Your task to perform on an android device: turn off picture-in-picture Image 0: 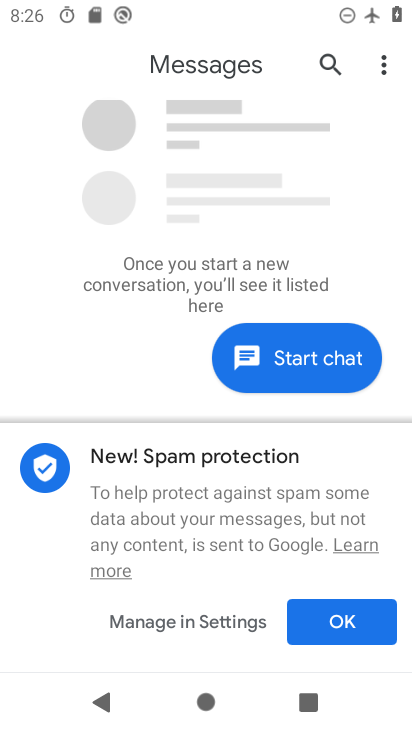
Step 0: press home button
Your task to perform on an android device: turn off picture-in-picture Image 1: 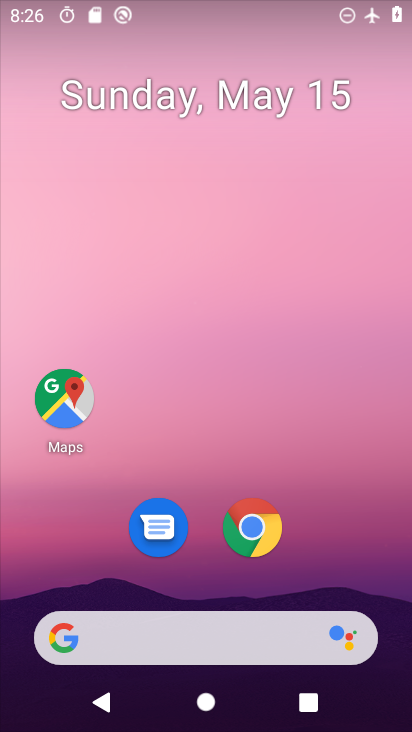
Step 1: click (250, 528)
Your task to perform on an android device: turn off picture-in-picture Image 2: 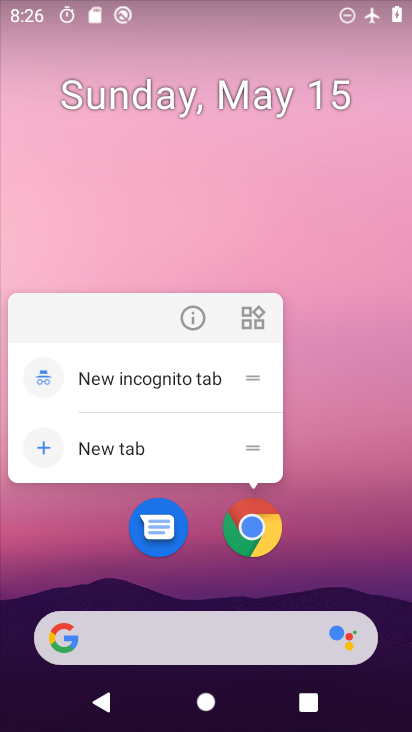
Step 2: click (194, 327)
Your task to perform on an android device: turn off picture-in-picture Image 3: 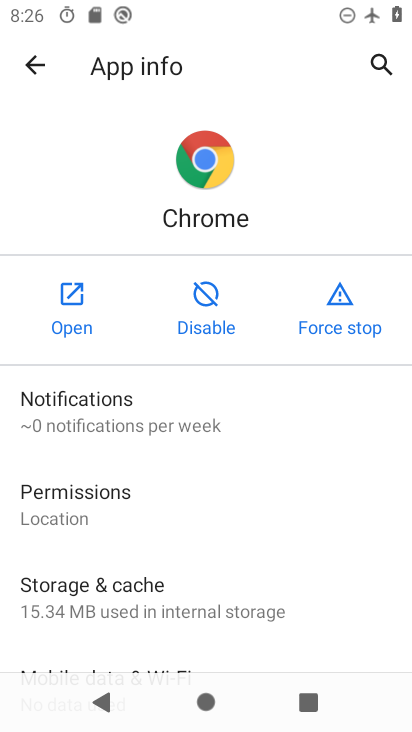
Step 3: drag from (234, 603) to (234, 420)
Your task to perform on an android device: turn off picture-in-picture Image 4: 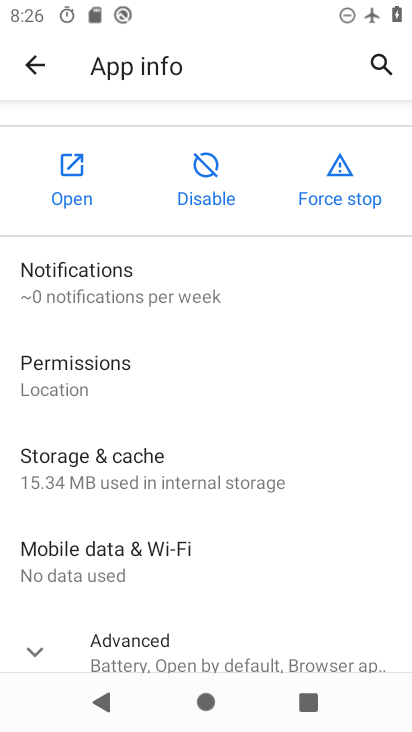
Step 4: drag from (216, 568) to (211, 391)
Your task to perform on an android device: turn off picture-in-picture Image 5: 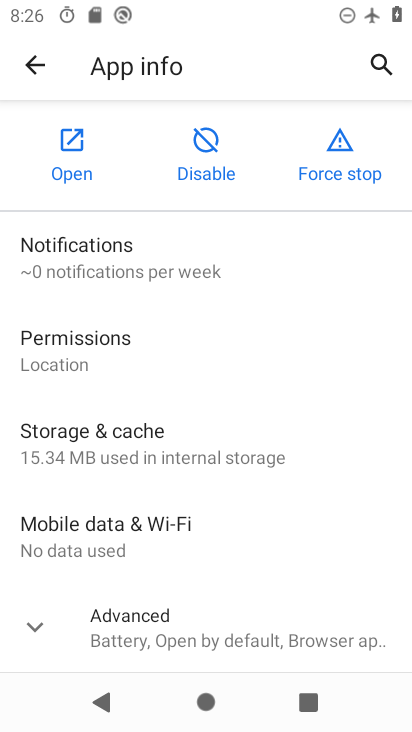
Step 5: drag from (219, 572) to (246, 375)
Your task to perform on an android device: turn off picture-in-picture Image 6: 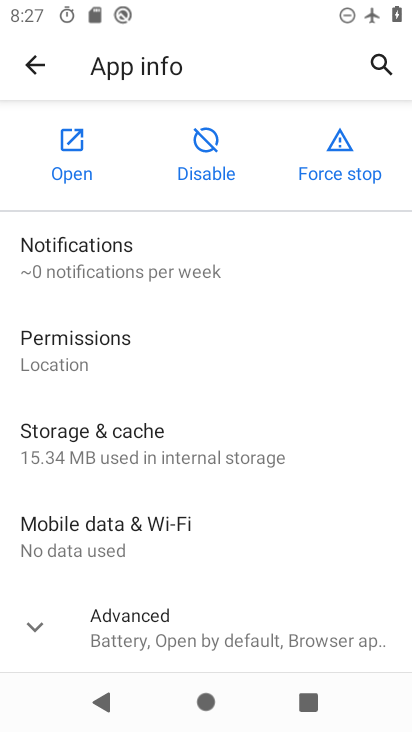
Step 6: click (165, 615)
Your task to perform on an android device: turn off picture-in-picture Image 7: 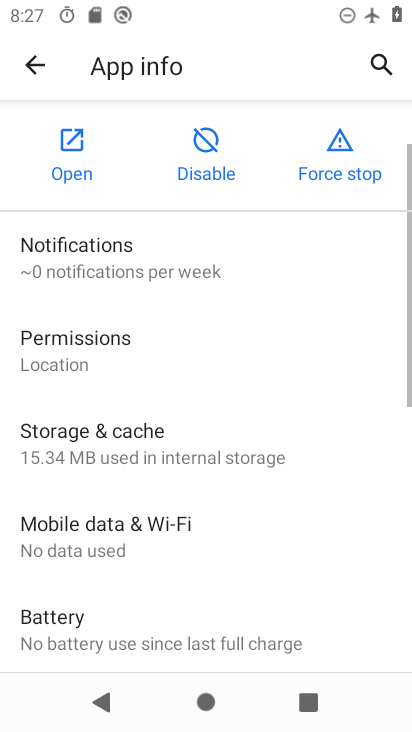
Step 7: drag from (190, 579) to (190, 297)
Your task to perform on an android device: turn off picture-in-picture Image 8: 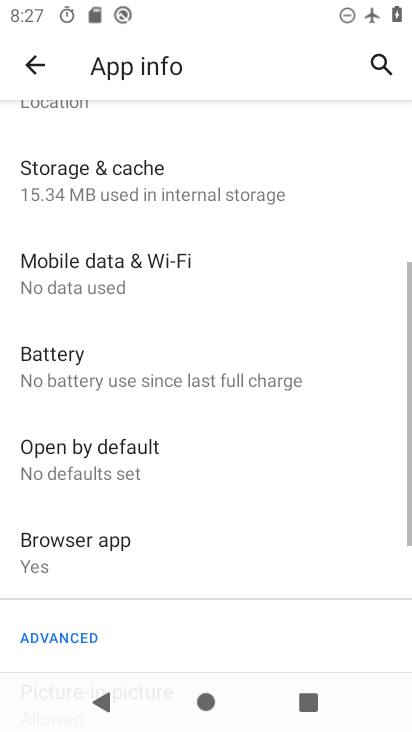
Step 8: drag from (201, 593) to (236, 389)
Your task to perform on an android device: turn off picture-in-picture Image 9: 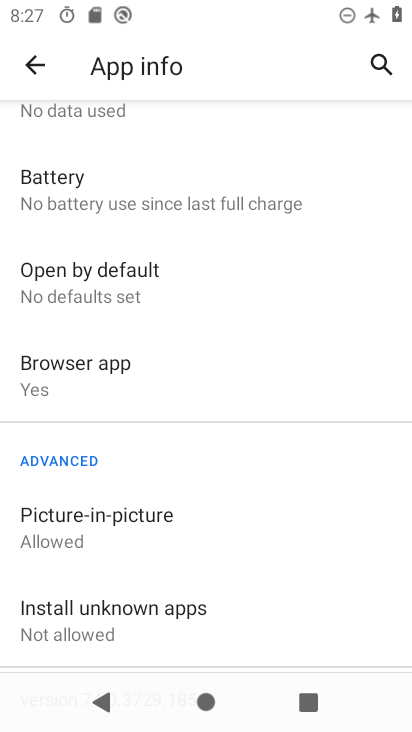
Step 9: click (115, 537)
Your task to perform on an android device: turn off picture-in-picture Image 10: 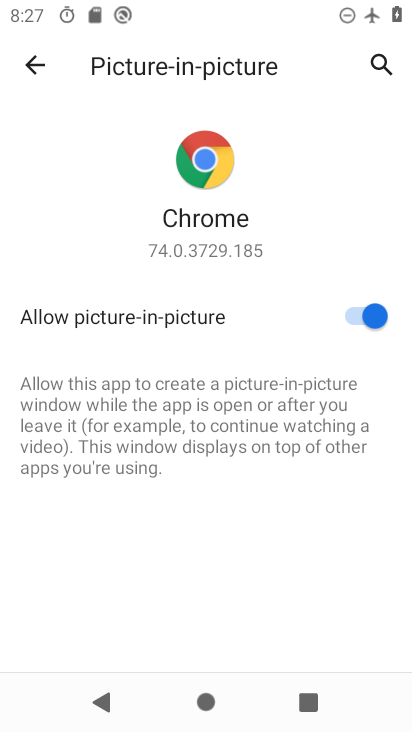
Step 10: click (359, 315)
Your task to perform on an android device: turn off picture-in-picture Image 11: 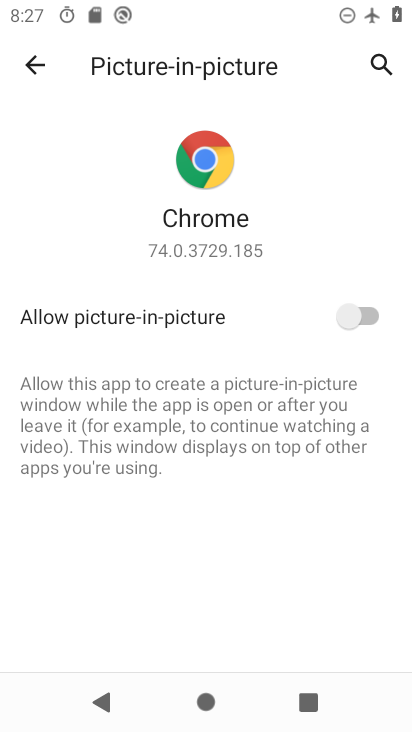
Step 11: task complete